Your task to perform on an android device: check android version Image 0: 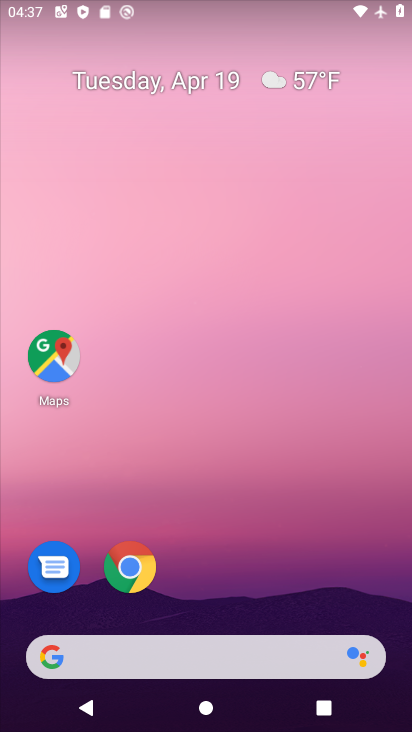
Step 0: drag from (358, 590) to (354, 202)
Your task to perform on an android device: check android version Image 1: 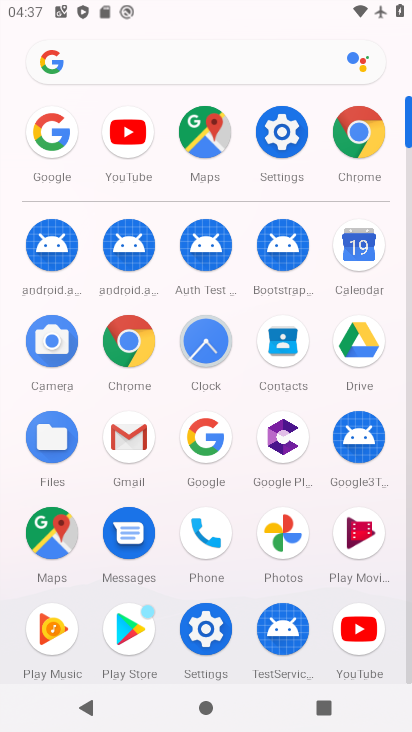
Step 1: click (222, 630)
Your task to perform on an android device: check android version Image 2: 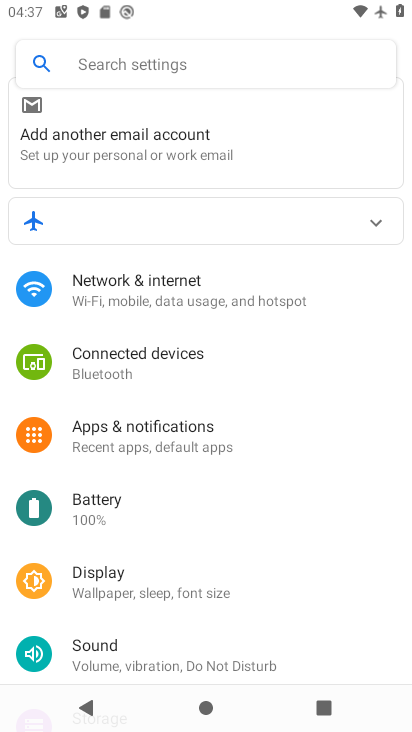
Step 2: drag from (345, 600) to (352, 508)
Your task to perform on an android device: check android version Image 3: 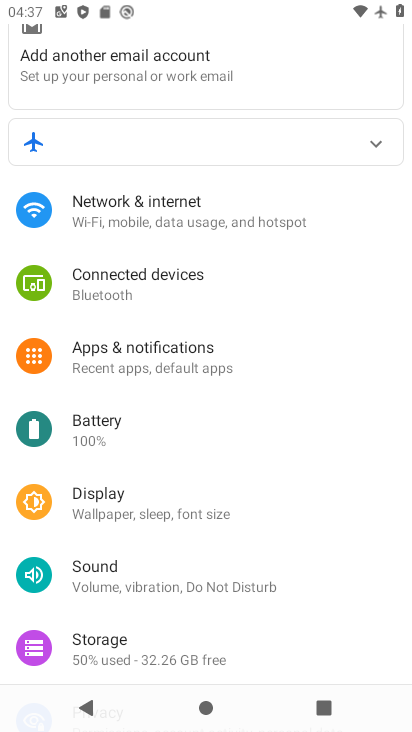
Step 3: drag from (350, 564) to (348, 487)
Your task to perform on an android device: check android version Image 4: 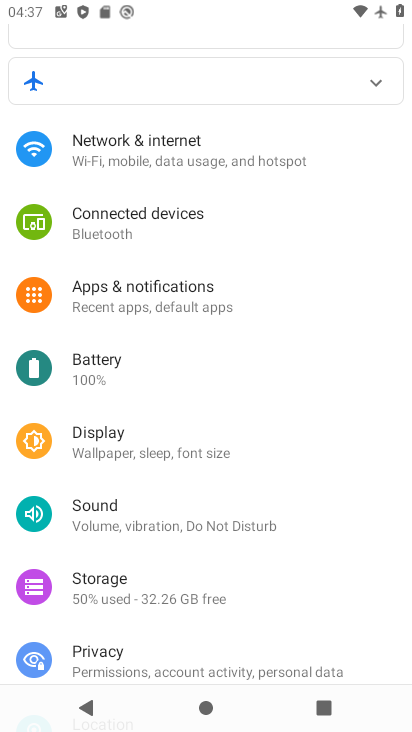
Step 4: drag from (365, 581) to (364, 466)
Your task to perform on an android device: check android version Image 5: 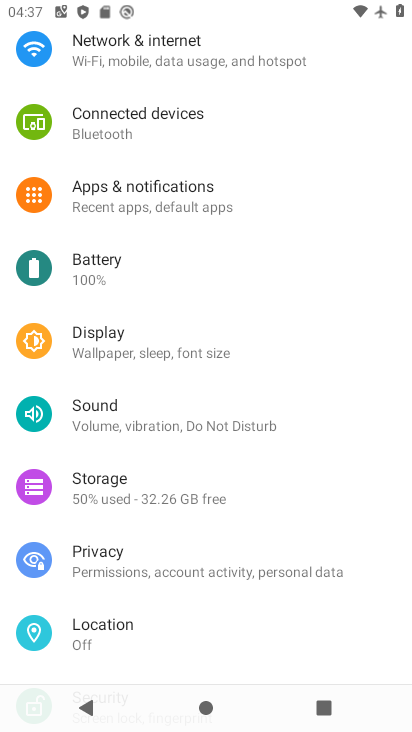
Step 5: drag from (363, 614) to (366, 500)
Your task to perform on an android device: check android version Image 6: 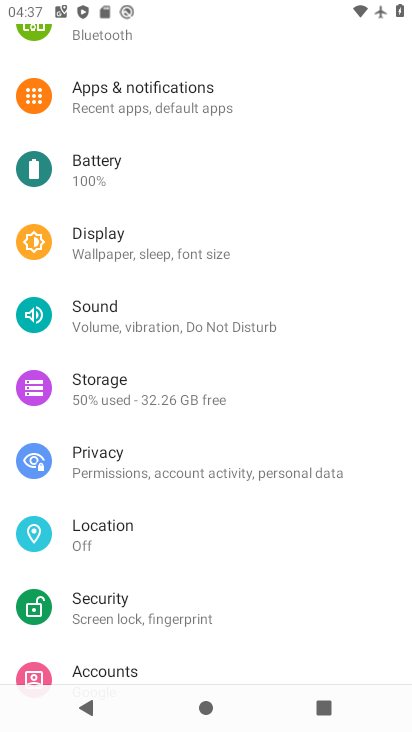
Step 6: drag from (361, 601) to (360, 486)
Your task to perform on an android device: check android version Image 7: 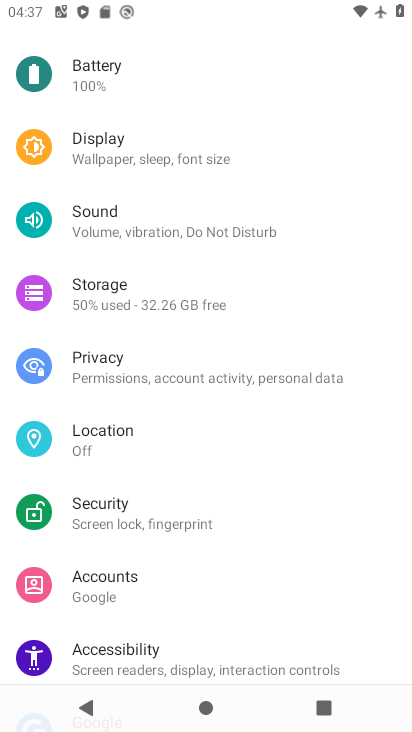
Step 7: drag from (368, 605) to (367, 493)
Your task to perform on an android device: check android version Image 8: 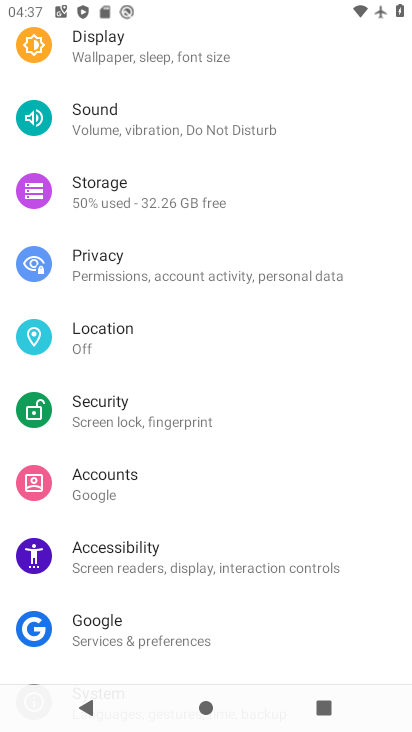
Step 8: drag from (359, 629) to (362, 505)
Your task to perform on an android device: check android version Image 9: 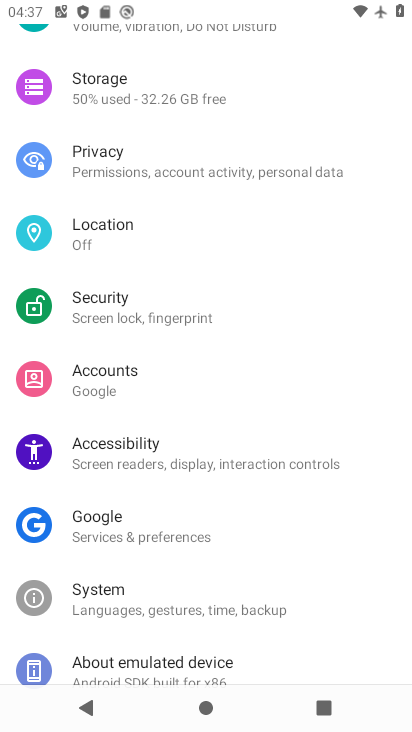
Step 9: drag from (357, 620) to (365, 489)
Your task to perform on an android device: check android version Image 10: 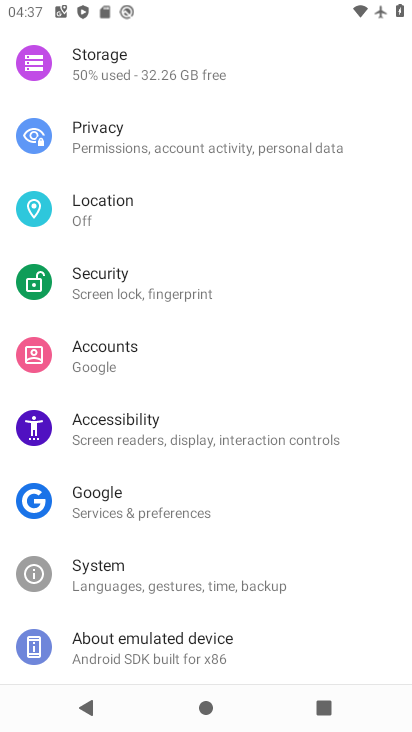
Step 10: click (246, 575)
Your task to perform on an android device: check android version Image 11: 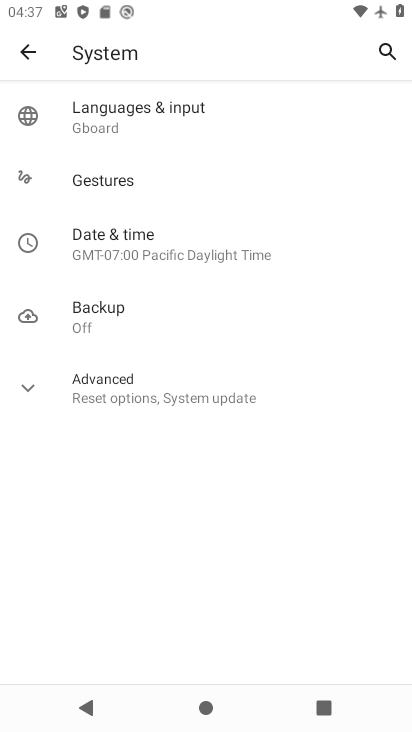
Step 11: click (211, 399)
Your task to perform on an android device: check android version Image 12: 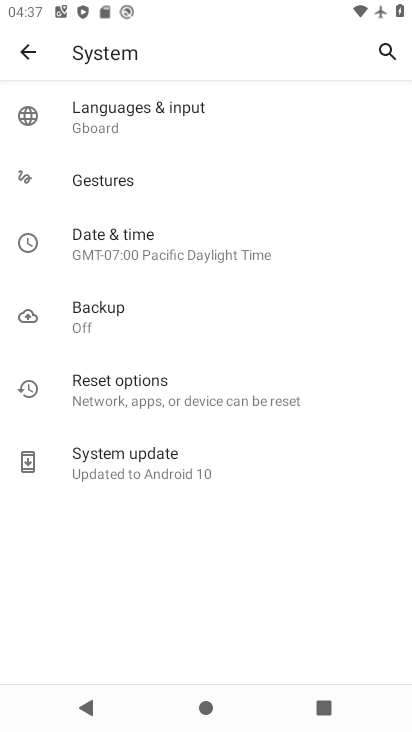
Step 12: click (186, 463)
Your task to perform on an android device: check android version Image 13: 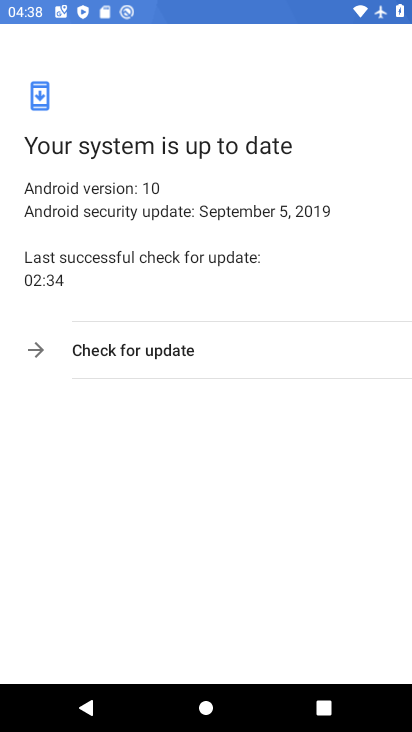
Step 13: task complete